Your task to perform on an android device: choose inbox layout in the gmail app Image 0: 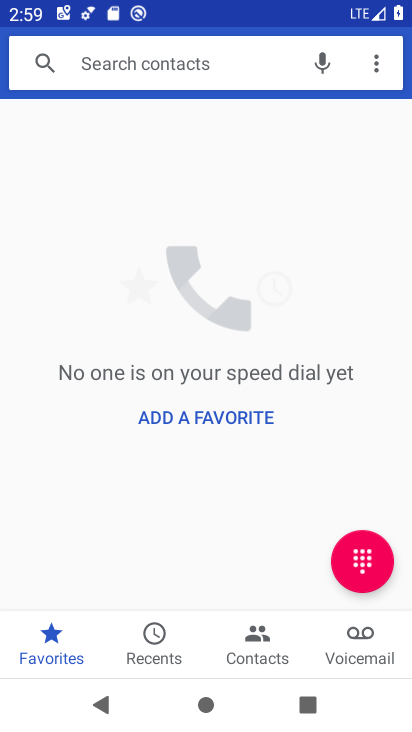
Step 0: press home button
Your task to perform on an android device: choose inbox layout in the gmail app Image 1: 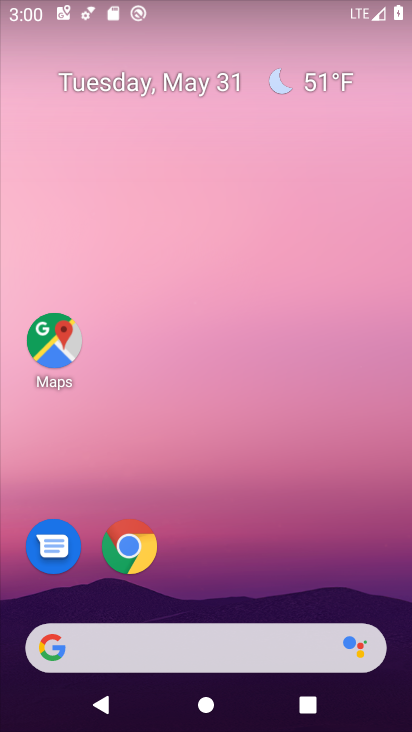
Step 1: drag from (255, 550) to (189, 67)
Your task to perform on an android device: choose inbox layout in the gmail app Image 2: 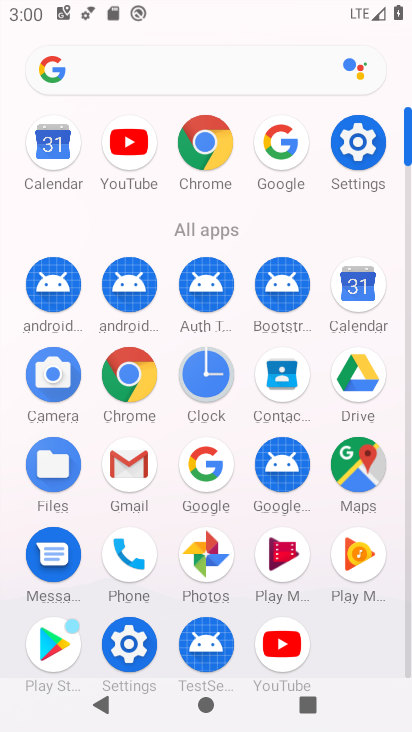
Step 2: click (134, 462)
Your task to perform on an android device: choose inbox layout in the gmail app Image 3: 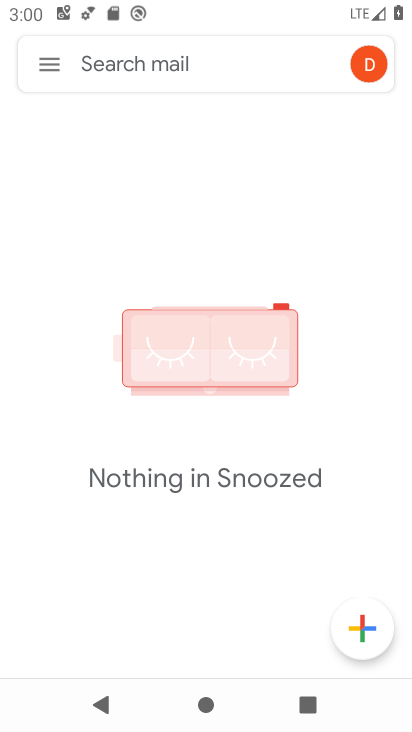
Step 3: click (48, 67)
Your task to perform on an android device: choose inbox layout in the gmail app Image 4: 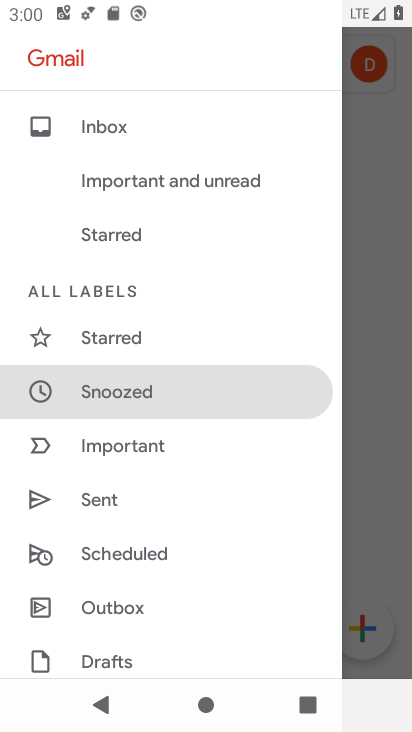
Step 4: drag from (141, 609) to (146, 157)
Your task to perform on an android device: choose inbox layout in the gmail app Image 5: 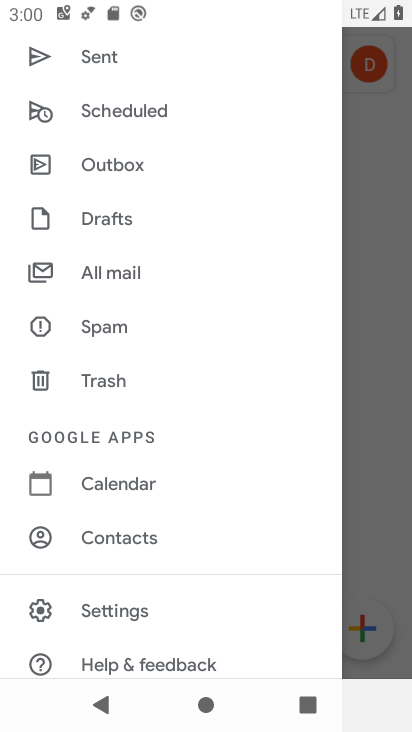
Step 5: click (122, 608)
Your task to perform on an android device: choose inbox layout in the gmail app Image 6: 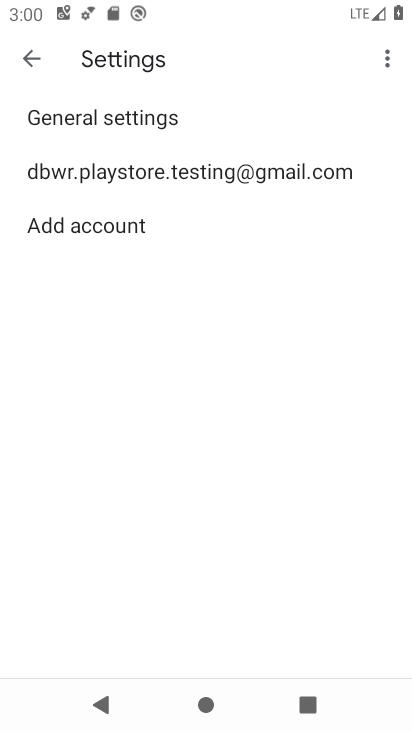
Step 6: click (195, 171)
Your task to perform on an android device: choose inbox layout in the gmail app Image 7: 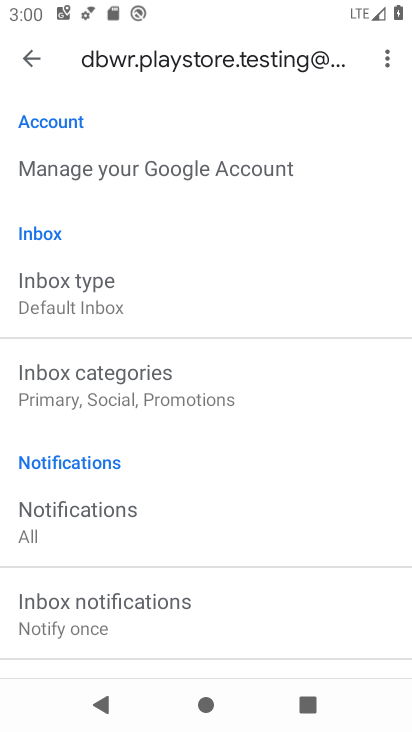
Step 7: click (175, 295)
Your task to perform on an android device: choose inbox layout in the gmail app Image 8: 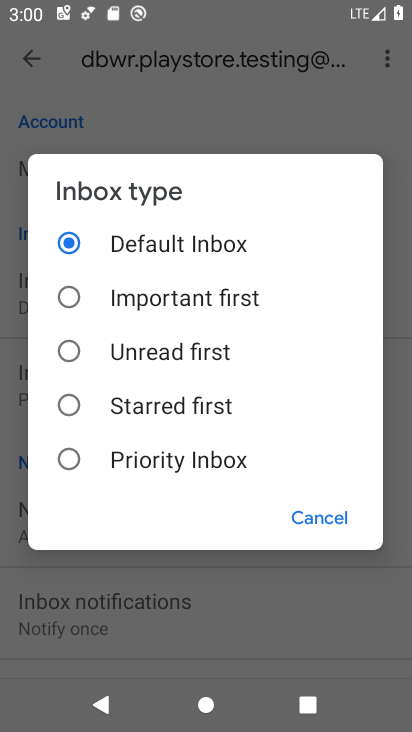
Step 8: click (184, 294)
Your task to perform on an android device: choose inbox layout in the gmail app Image 9: 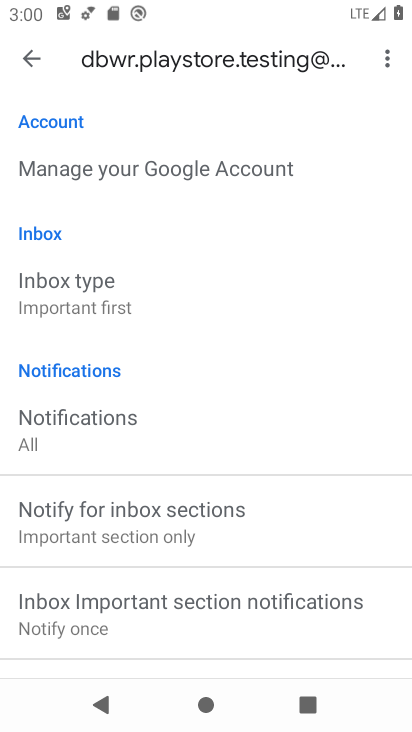
Step 9: task complete